Your task to perform on an android device: Open Android settings Image 0: 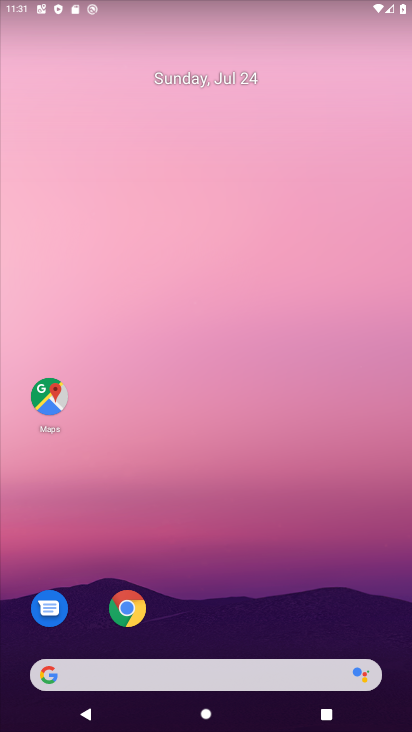
Step 0: drag from (198, 658) to (222, 20)
Your task to perform on an android device: Open Android settings Image 1: 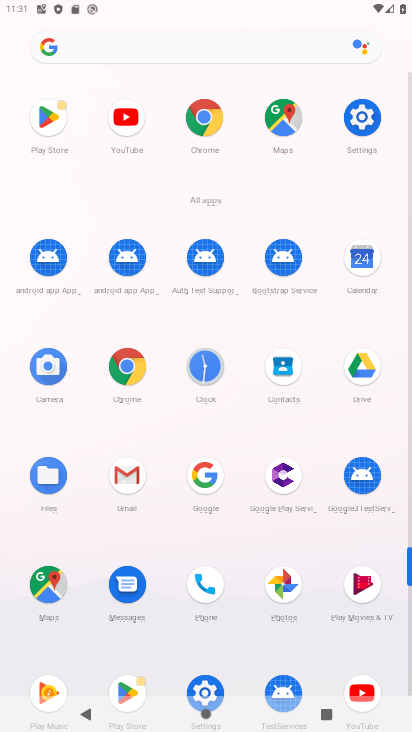
Step 1: click (363, 115)
Your task to perform on an android device: Open Android settings Image 2: 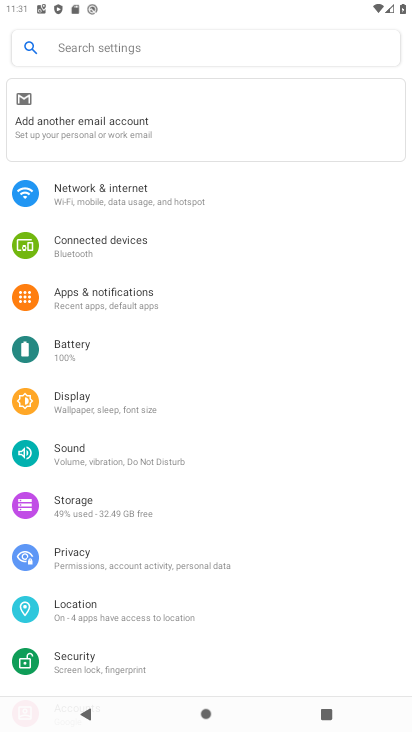
Step 2: task complete